Your task to perform on an android device: turn on airplane mode Image 0: 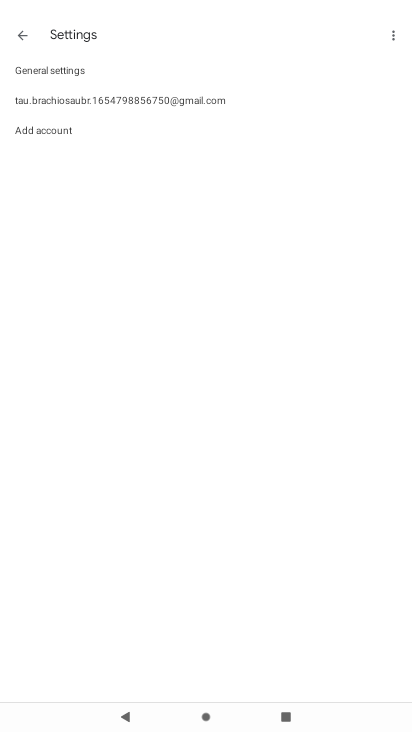
Step 0: press home button
Your task to perform on an android device: turn on airplane mode Image 1: 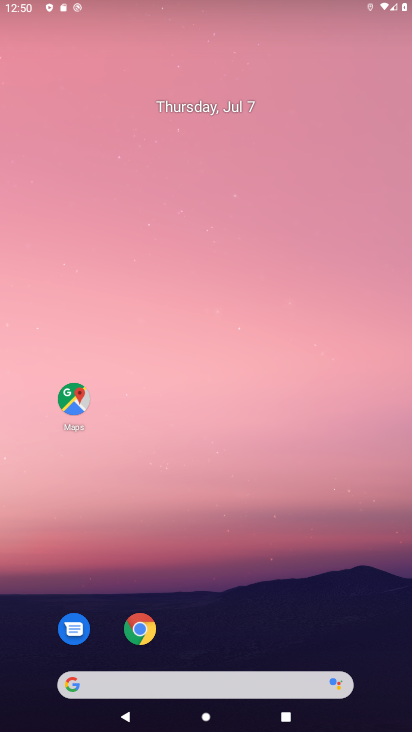
Step 1: drag from (226, 625) to (263, 74)
Your task to perform on an android device: turn on airplane mode Image 2: 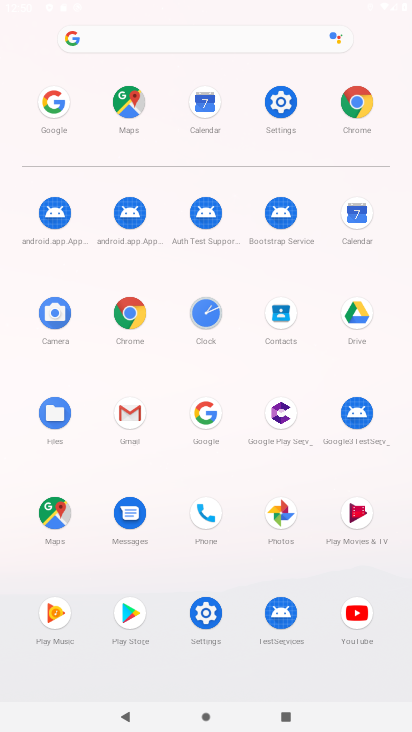
Step 2: click (288, 97)
Your task to perform on an android device: turn on airplane mode Image 3: 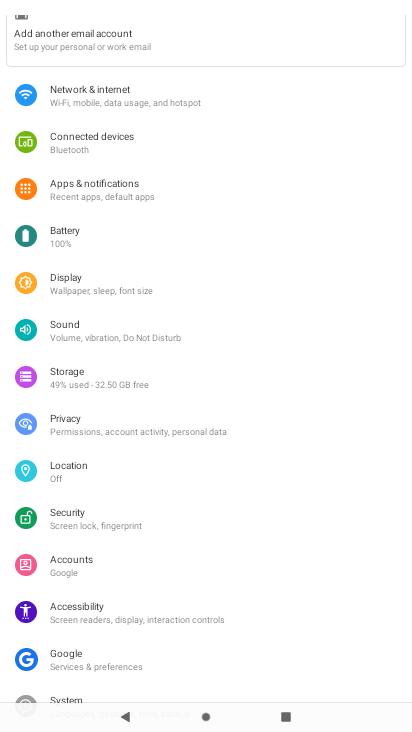
Step 3: click (131, 91)
Your task to perform on an android device: turn on airplane mode Image 4: 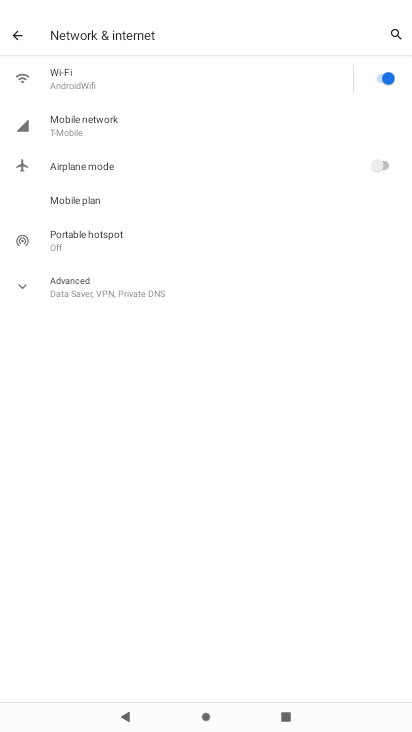
Step 4: click (390, 160)
Your task to perform on an android device: turn on airplane mode Image 5: 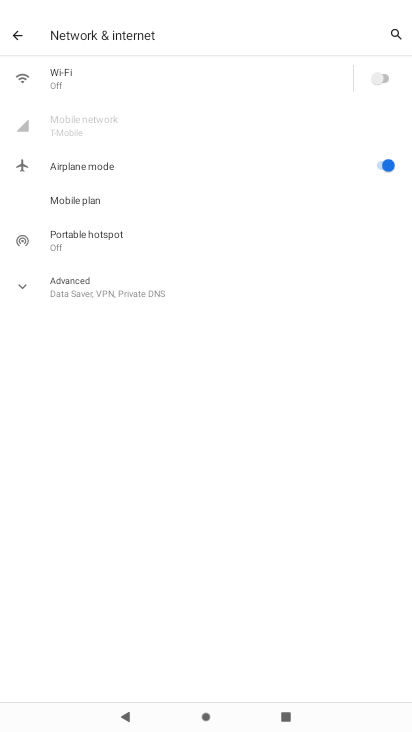
Step 5: task complete